Your task to perform on an android device: What's the weather today? Image 0: 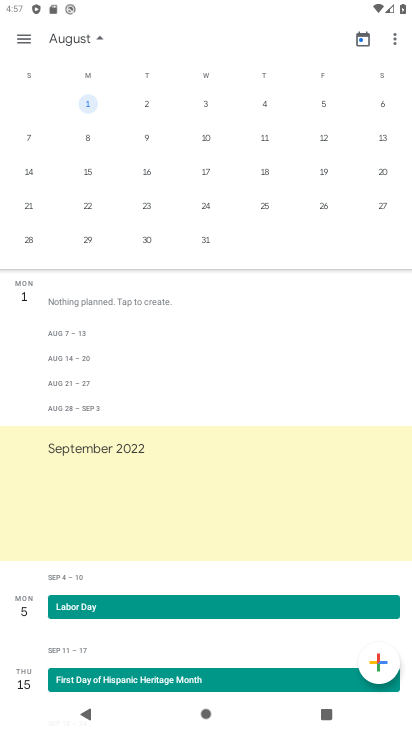
Step 0: press home button
Your task to perform on an android device: What's the weather today? Image 1: 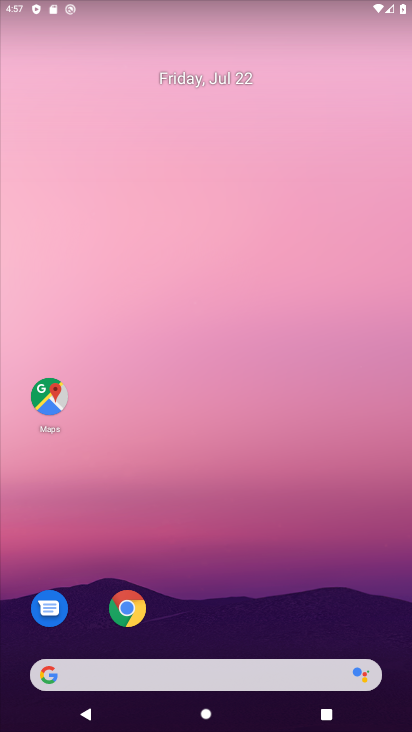
Step 1: click (137, 676)
Your task to perform on an android device: What's the weather today? Image 2: 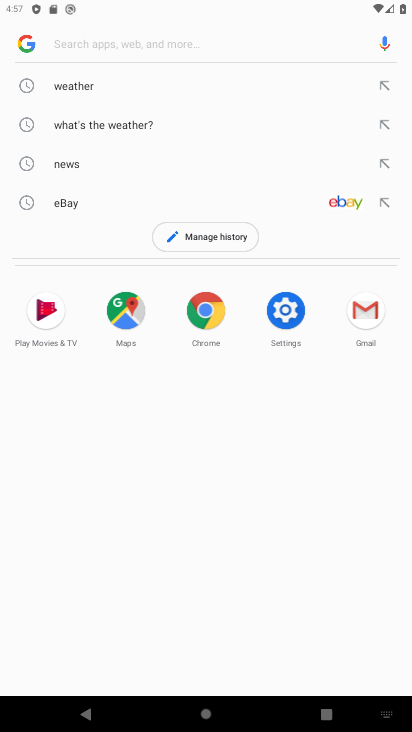
Step 2: click (104, 90)
Your task to perform on an android device: What's the weather today? Image 3: 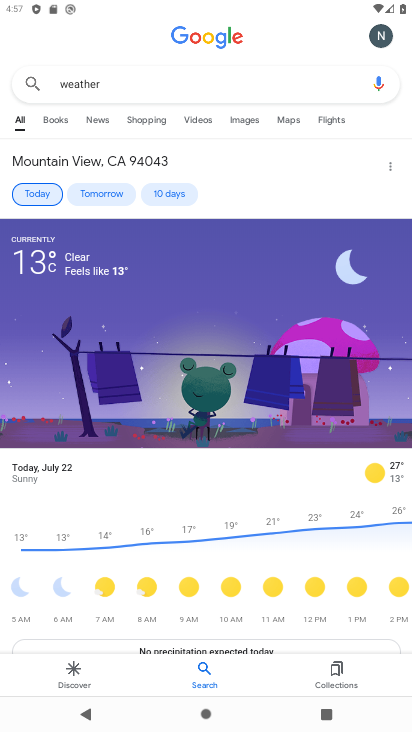
Step 3: task complete